Your task to perform on an android device: How much does a 2 bedroom apartment rent for in San Francisco? Image 0: 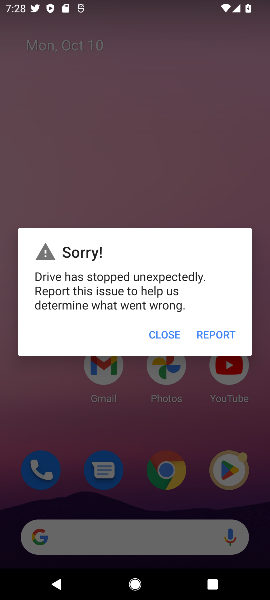
Step 0: click (163, 333)
Your task to perform on an android device: How much does a 2 bedroom apartment rent for in San Francisco? Image 1: 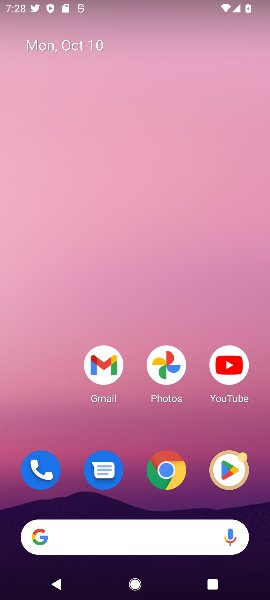
Step 1: click (85, 530)
Your task to perform on an android device: How much does a 2 bedroom apartment rent for in San Francisco? Image 2: 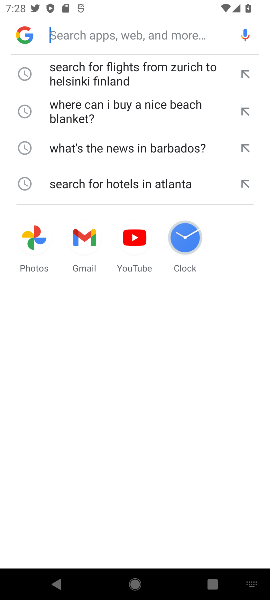
Step 2: click (166, 478)
Your task to perform on an android device: How much does a 2 bedroom apartment rent for in San Francisco? Image 3: 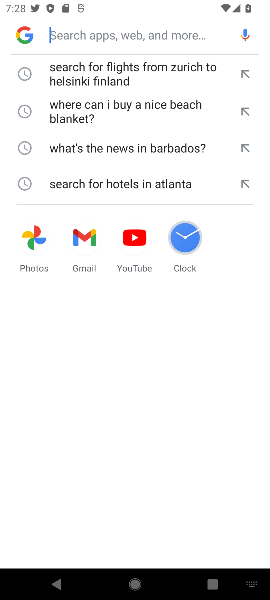
Step 3: type "How much does a 2 bedroom apartment rent for in San Francisco?"
Your task to perform on an android device: How much does a 2 bedroom apartment rent for in San Francisco? Image 4: 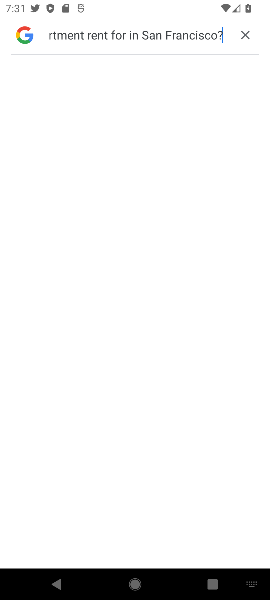
Step 4: task complete